Your task to perform on an android device: Turn on the flashlight Image 0: 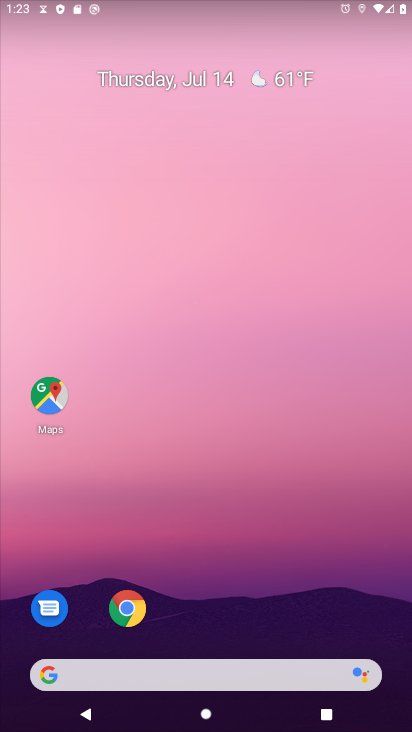
Step 0: drag from (286, 0) to (248, 453)
Your task to perform on an android device: Turn on the flashlight Image 1: 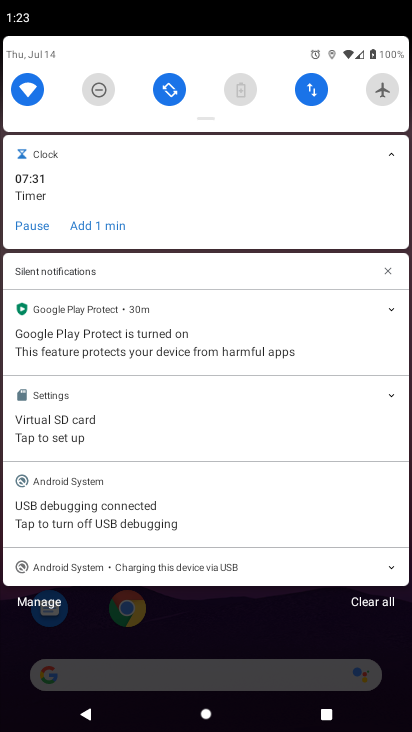
Step 1: drag from (198, 98) to (242, 517)
Your task to perform on an android device: Turn on the flashlight Image 2: 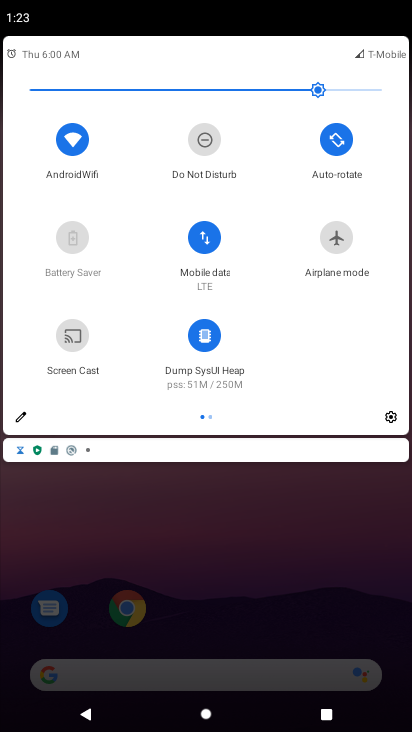
Step 2: drag from (349, 261) to (9, 327)
Your task to perform on an android device: Turn on the flashlight Image 3: 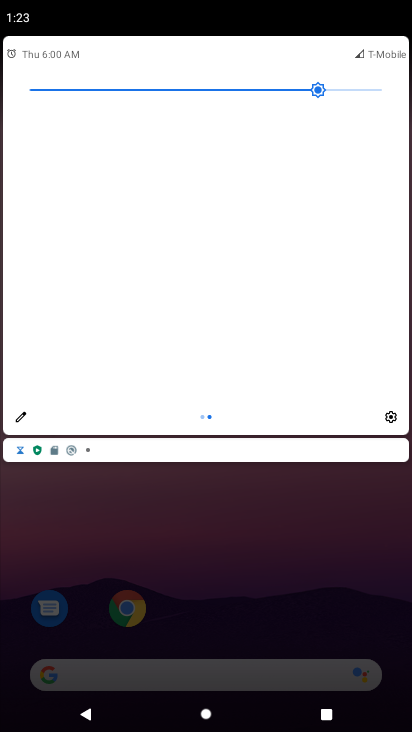
Step 3: click (21, 419)
Your task to perform on an android device: Turn on the flashlight Image 4: 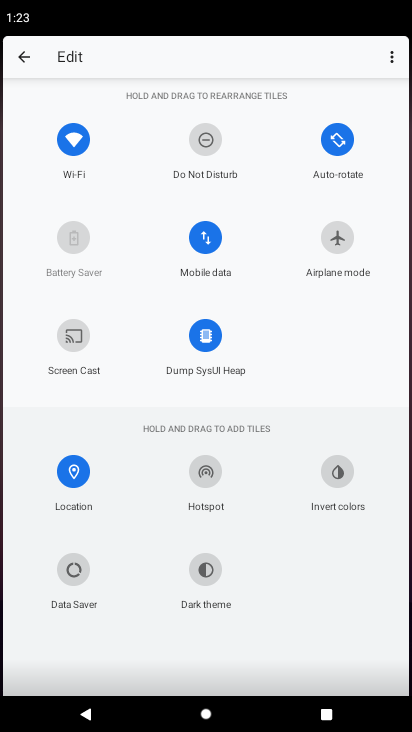
Step 4: task complete